Your task to perform on an android device: see tabs open on other devices in the chrome app Image 0: 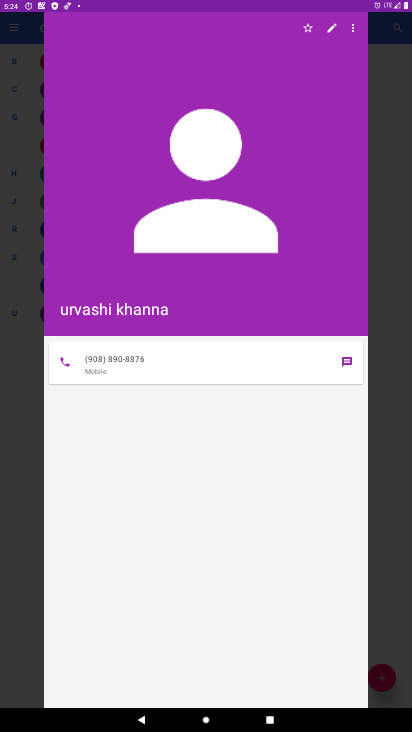
Step 0: press home button
Your task to perform on an android device: see tabs open on other devices in the chrome app Image 1: 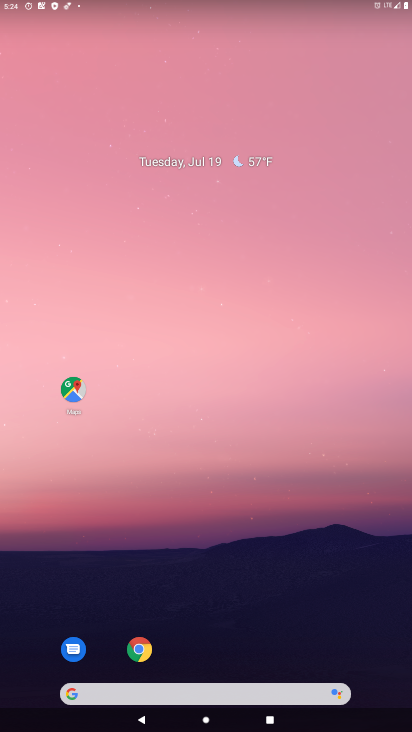
Step 1: click (140, 648)
Your task to perform on an android device: see tabs open on other devices in the chrome app Image 2: 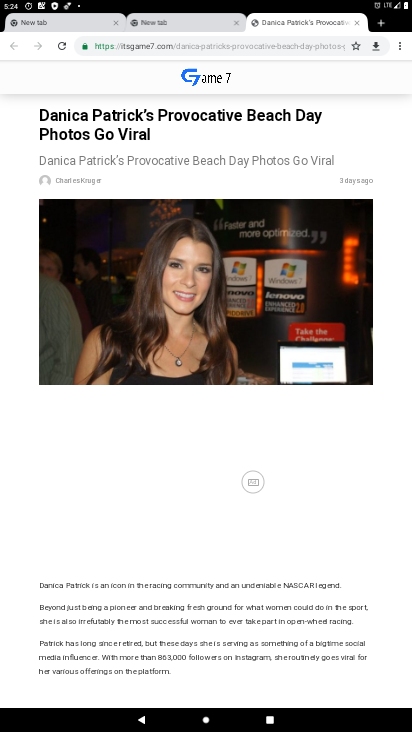
Step 2: click (400, 51)
Your task to perform on an android device: see tabs open on other devices in the chrome app Image 3: 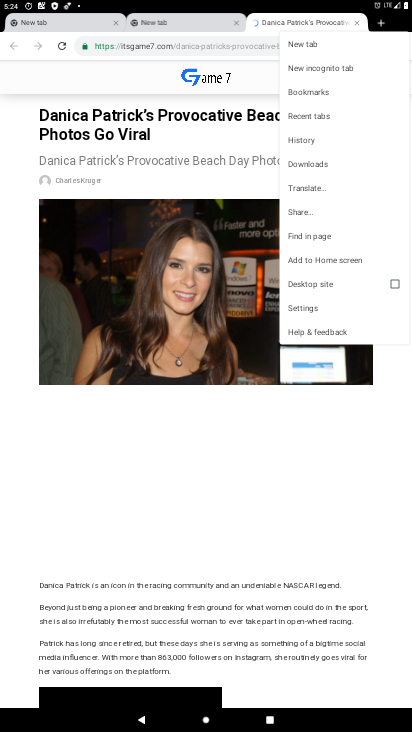
Step 3: click (339, 118)
Your task to perform on an android device: see tabs open on other devices in the chrome app Image 4: 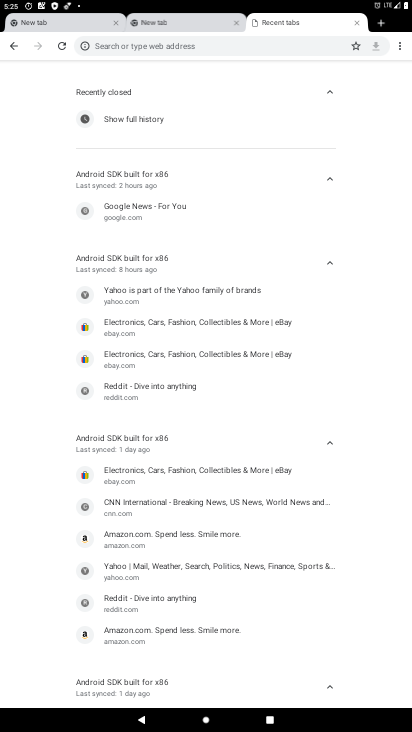
Step 4: task complete